Your task to perform on an android device: turn off airplane mode Image 0: 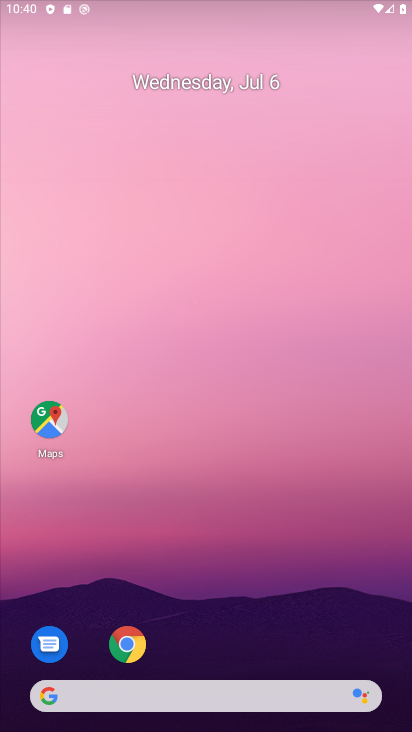
Step 0: drag from (288, 612) to (257, 238)
Your task to perform on an android device: turn off airplane mode Image 1: 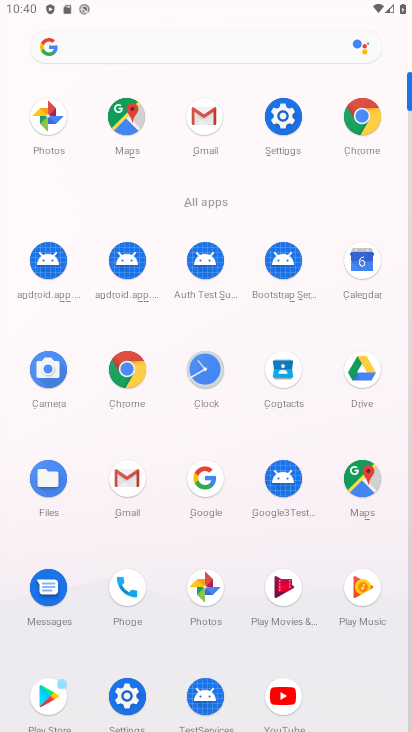
Step 1: click (283, 129)
Your task to perform on an android device: turn off airplane mode Image 2: 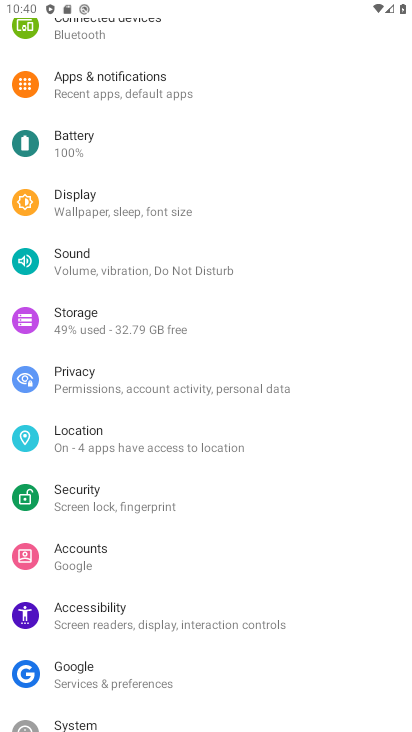
Step 2: drag from (229, 83) to (248, 422)
Your task to perform on an android device: turn off airplane mode Image 3: 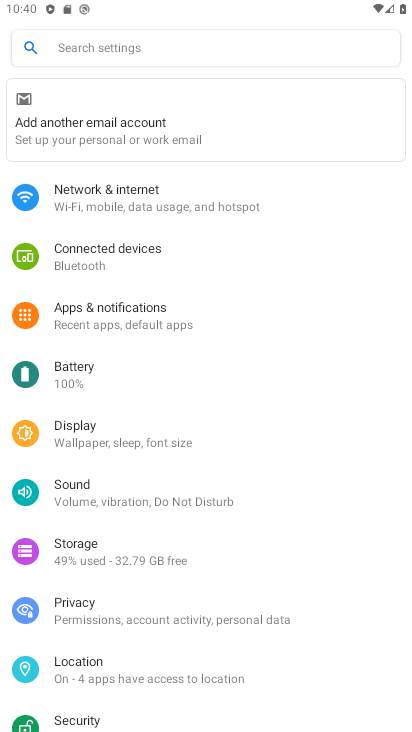
Step 3: click (194, 194)
Your task to perform on an android device: turn off airplane mode Image 4: 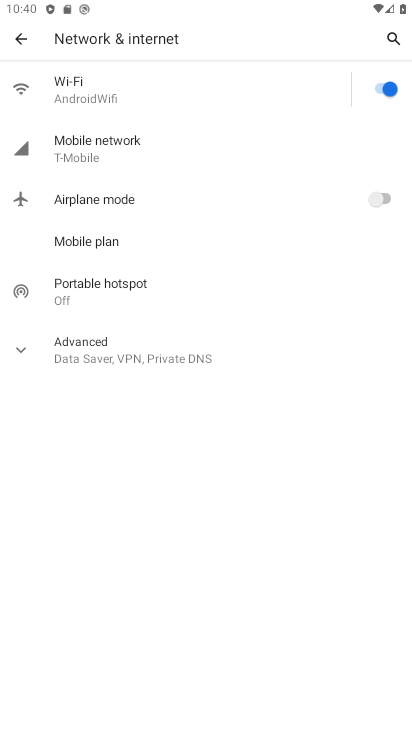
Step 4: task complete